Your task to perform on an android device: refresh tabs in the chrome app Image 0: 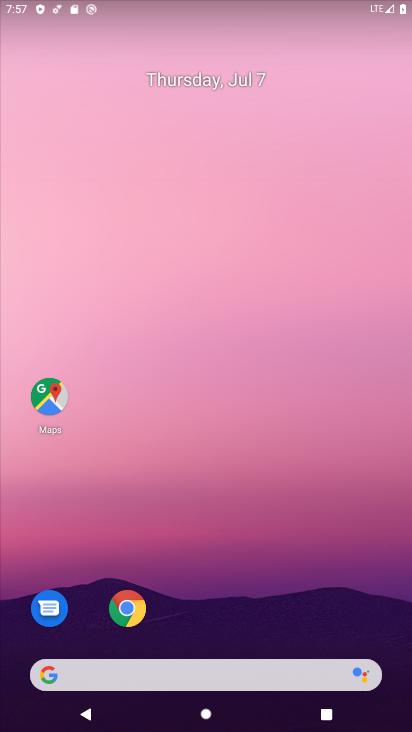
Step 0: click (128, 610)
Your task to perform on an android device: refresh tabs in the chrome app Image 1: 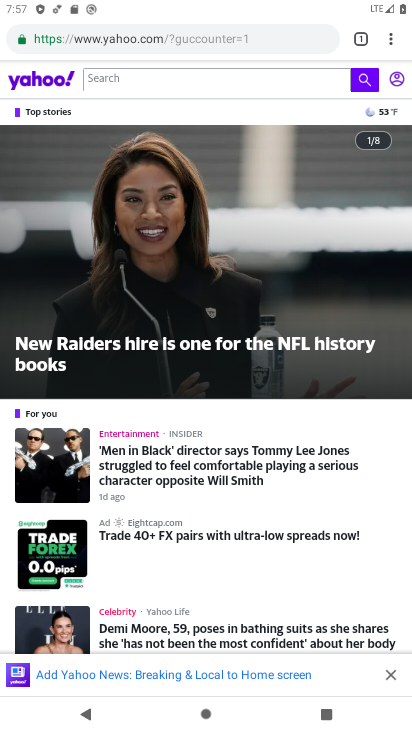
Step 1: click (391, 43)
Your task to perform on an android device: refresh tabs in the chrome app Image 2: 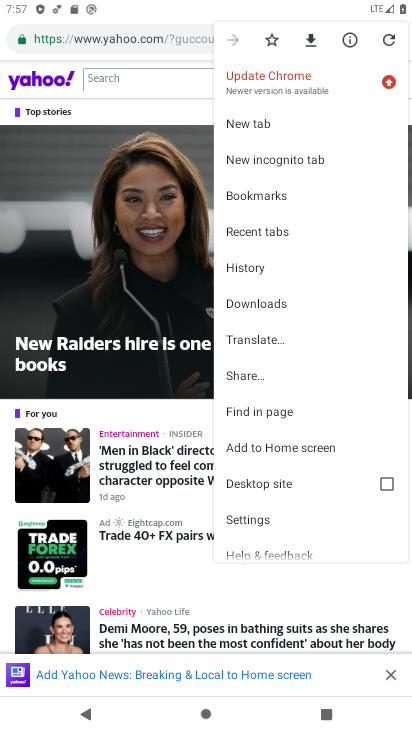
Step 2: click (387, 35)
Your task to perform on an android device: refresh tabs in the chrome app Image 3: 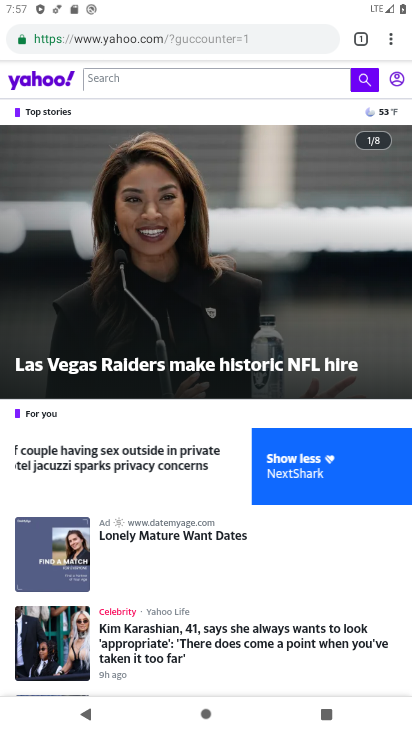
Step 3: task complete